Your task to perform on an android device: turn on wifi Image 0: 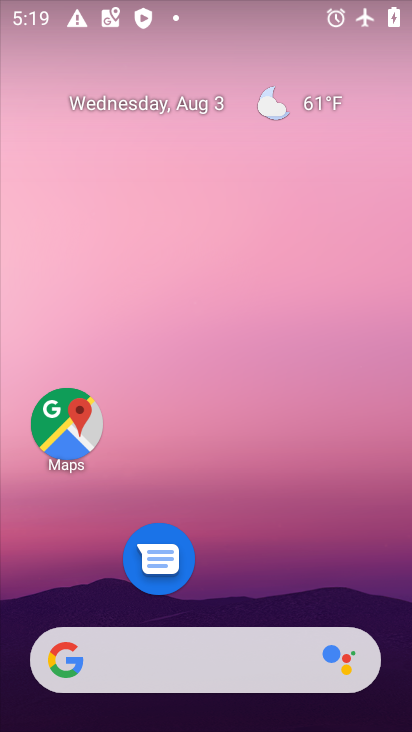
Step 0: drag from (164, 632) to (208, 243)
Your task to perform on an android device: turn on wifi Image 1: 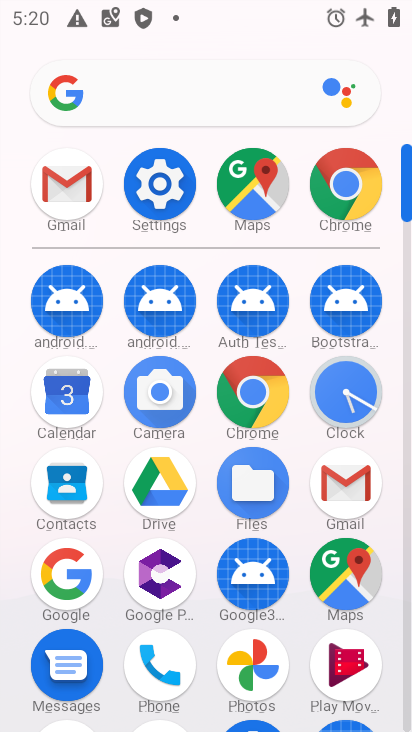
Step 1: click (164, 182)
Your task to perform on an android device: turn on wifi Image 2: 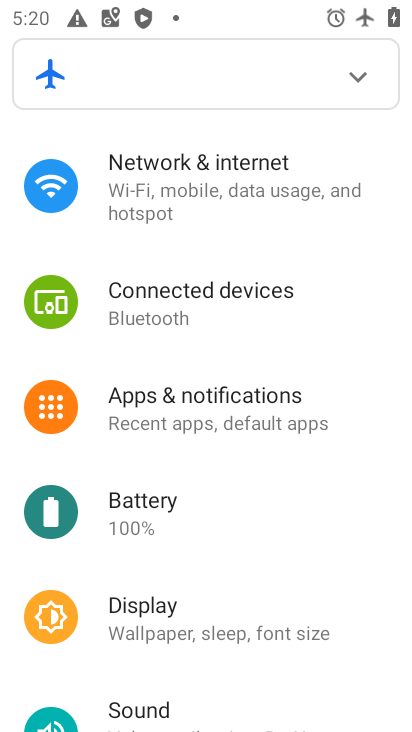
Step 2: click (216, 196)
Your task to perform on an android device: turn on wifi Image 3: 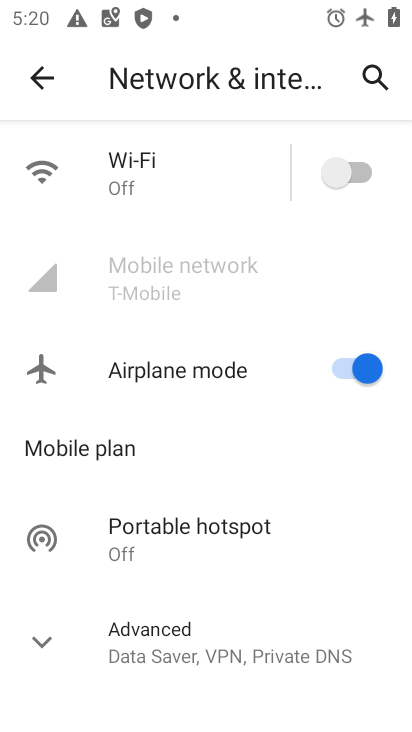
Step 3: click (348, 175)
Your task to perform on an android device: turn on wifi Image 4: 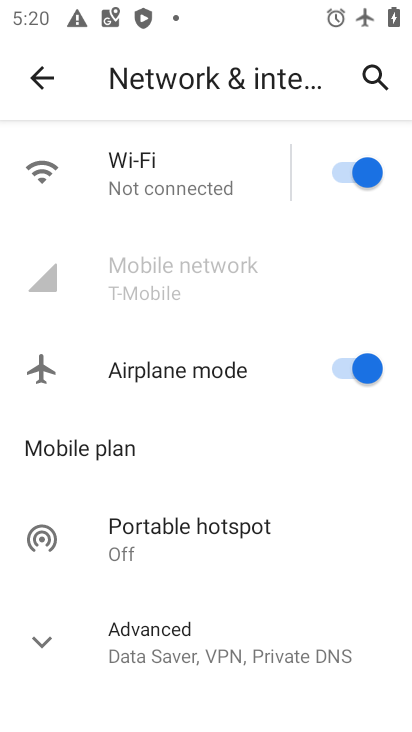
Step 4: task complete